Your task to perform on an android device: empty trash in google photos Image 0: 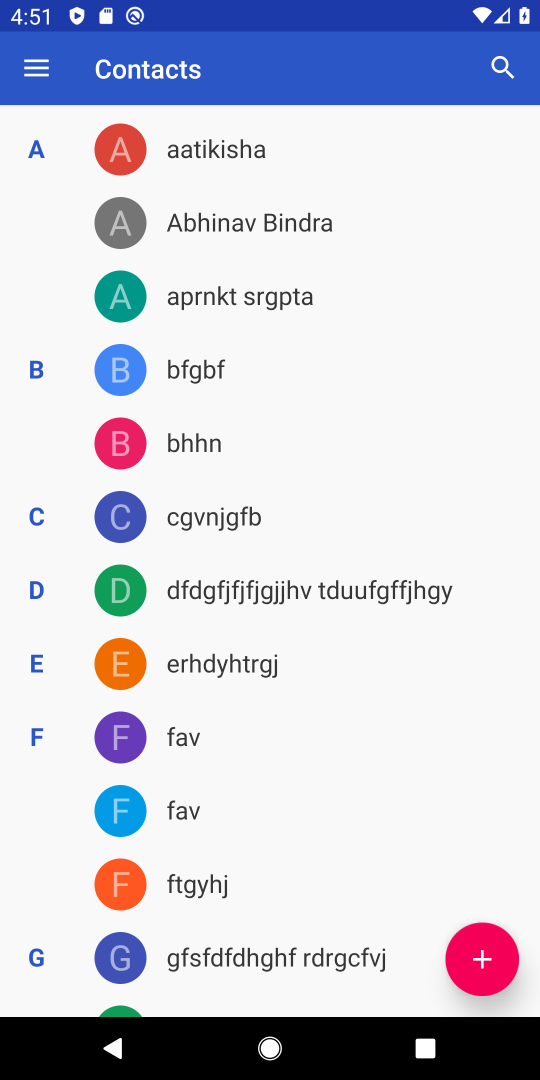
Step 0: press home button
Your task to perform on an android device: empty trash in google photos Image 1: 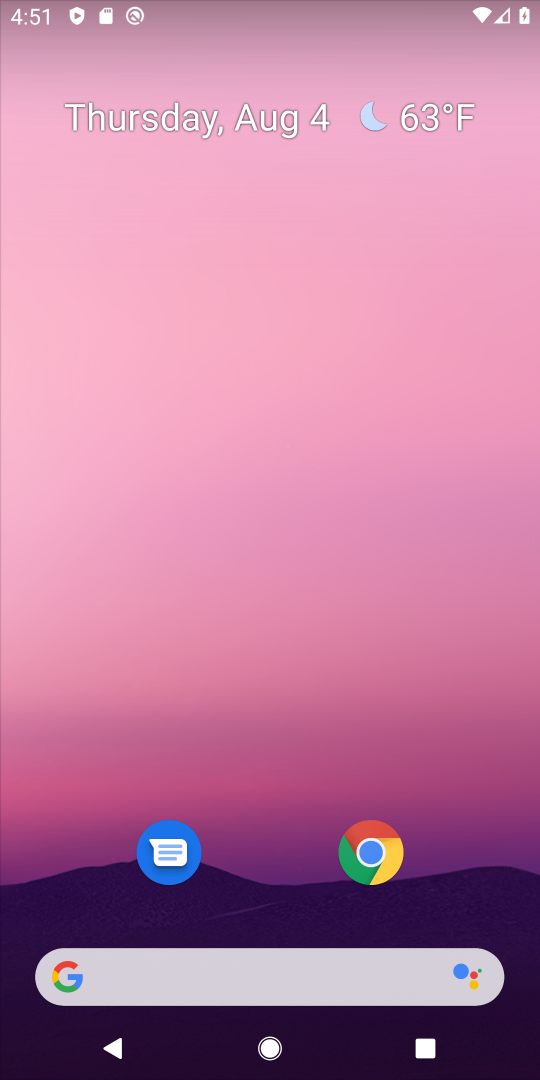
Step 1: drag from (280, 882) to (265, 121)
Your task to perform on an android device: empty trash in google photos Image 2: 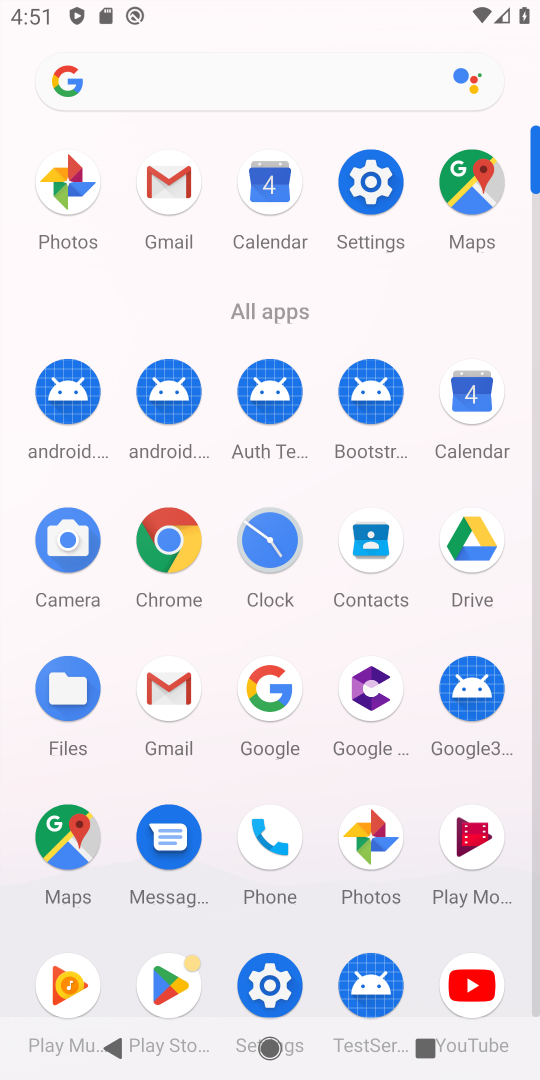
Step 2: click (369, 830)
Your task to perform on an android device: empty trash in google photos Image 3: 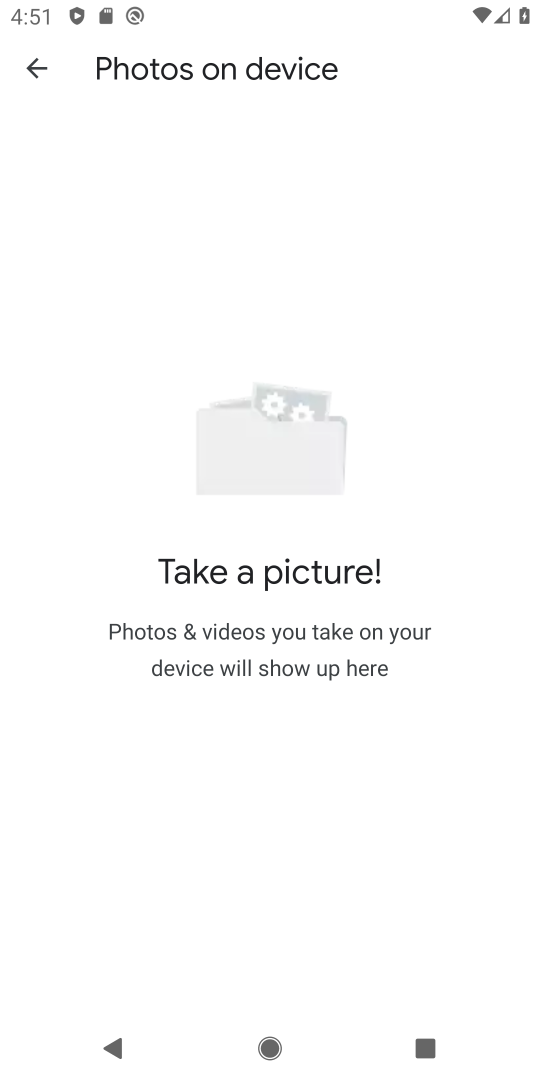
Step 3: click (33, 58)
Your task to perform on an android device: empty trash in google photos Image 4: 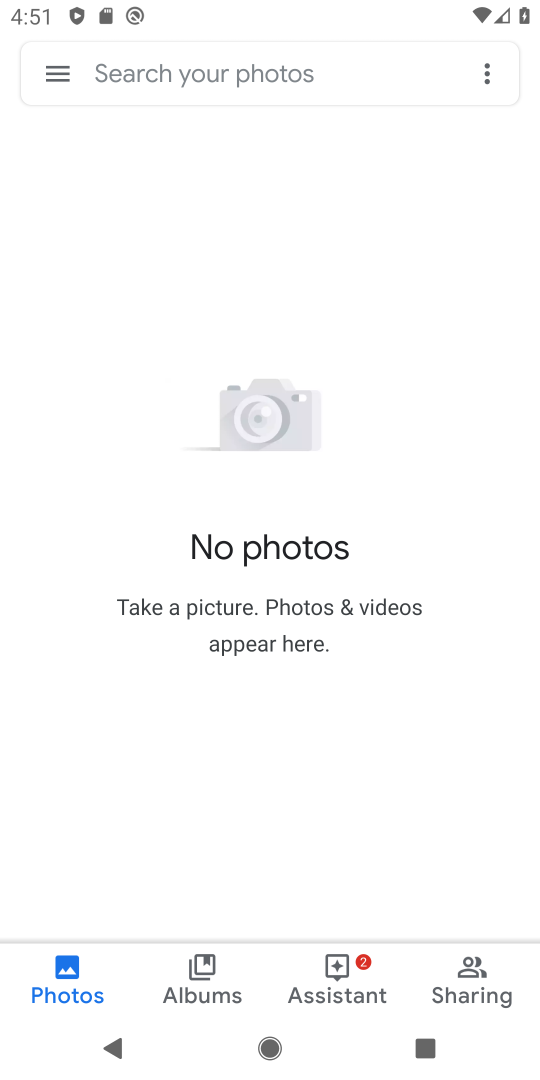
Step 4: click (57, 76)
Your task to perform on an android device: empty trash in google photos Image 5: 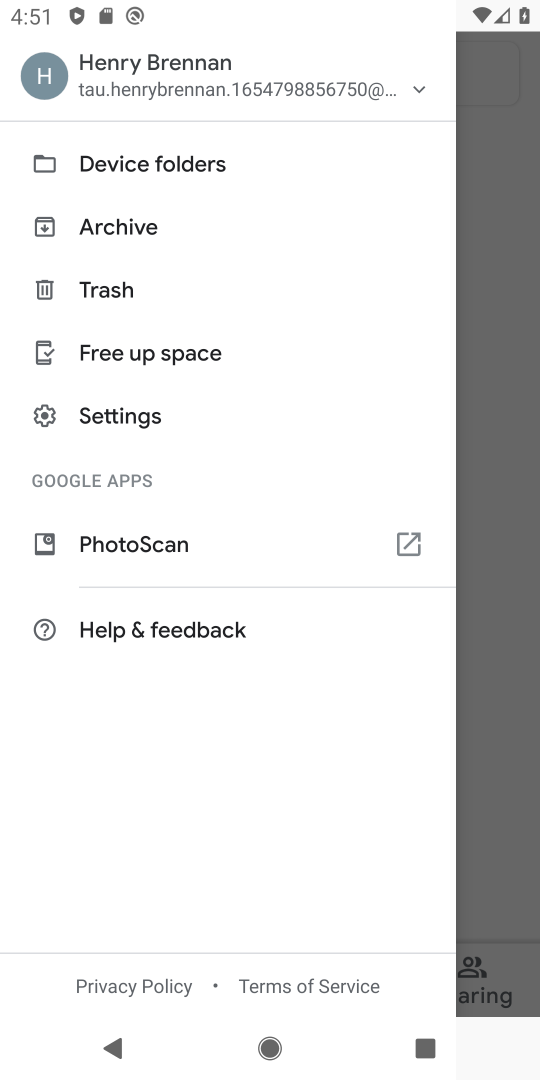
Step 5: click (98, 291)
Your task to perform on an android device: empty trash in google photos Image 6: 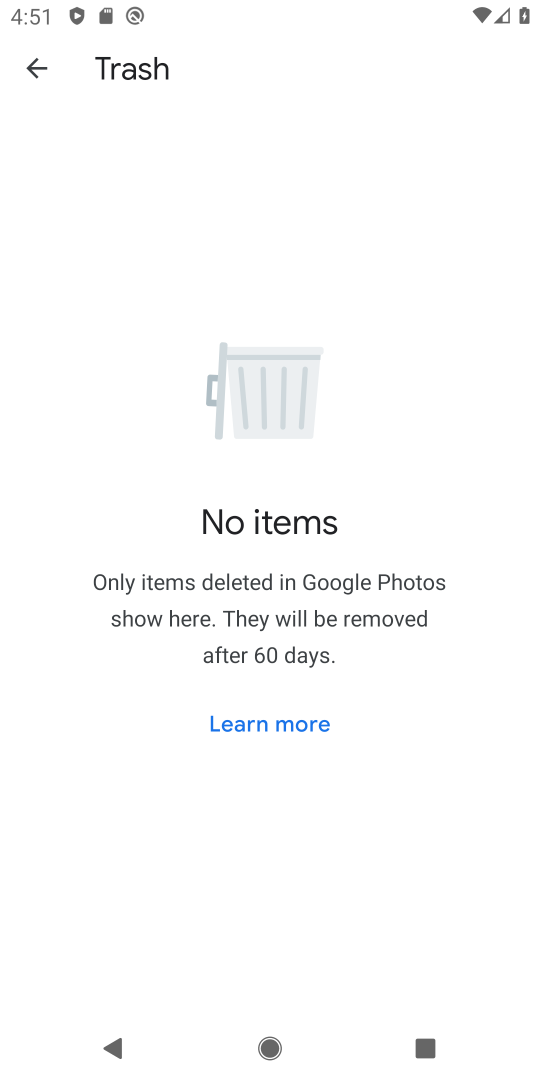
Step 6: task complete